Your task to perform on an android device: Search for the ikea billy bookcase Image 0: 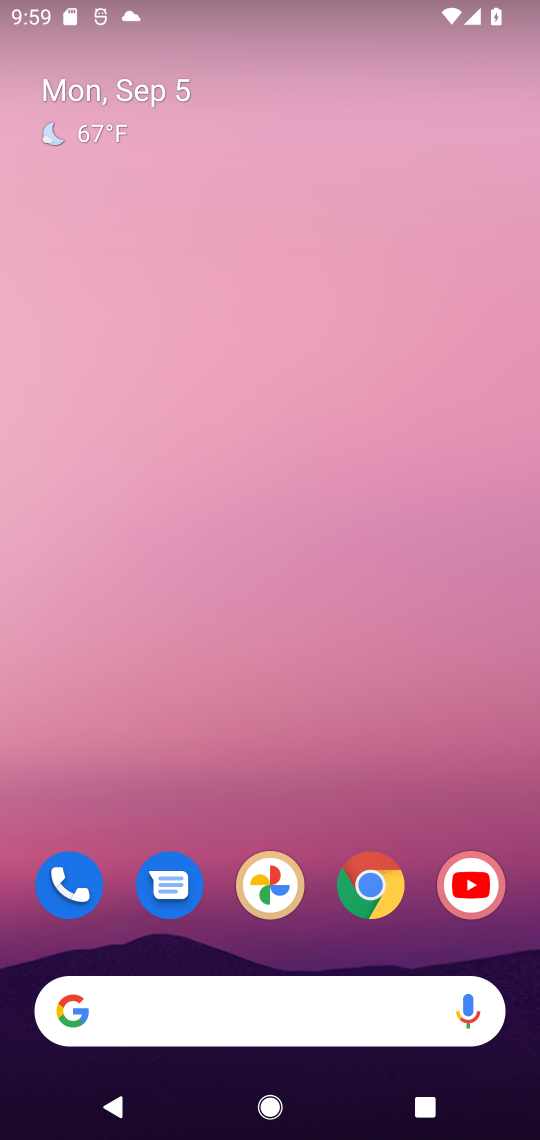
Step 0: drag from (322, 963) to (0, 329)
Your task to perform on an android device: Search for the ikea billy bookcase Image 1: 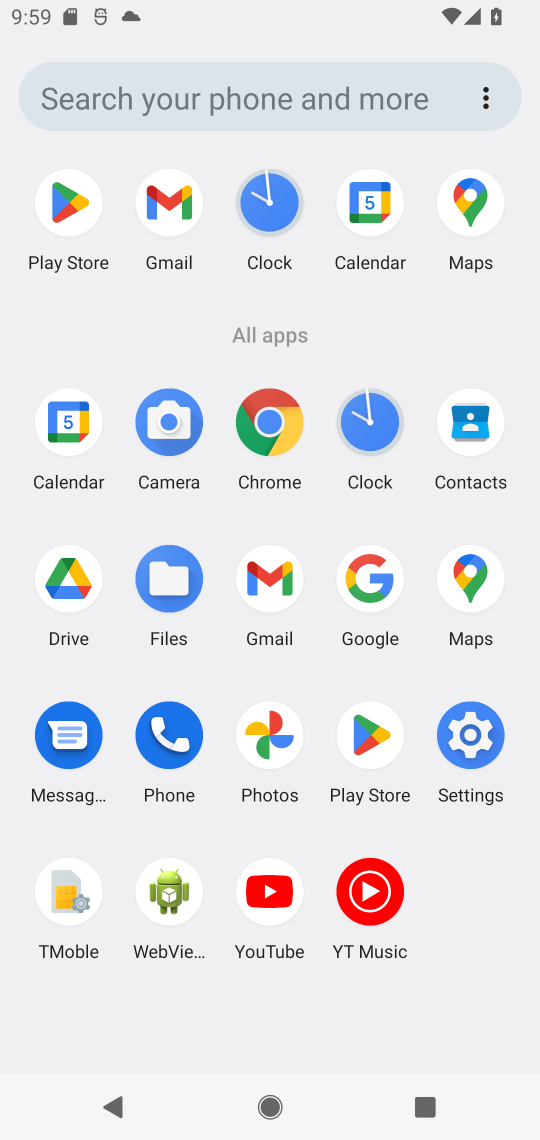
Step 1: click (362, 581)
Your task to perform on an android device: Search for the ikea billy bookcase Image 2: 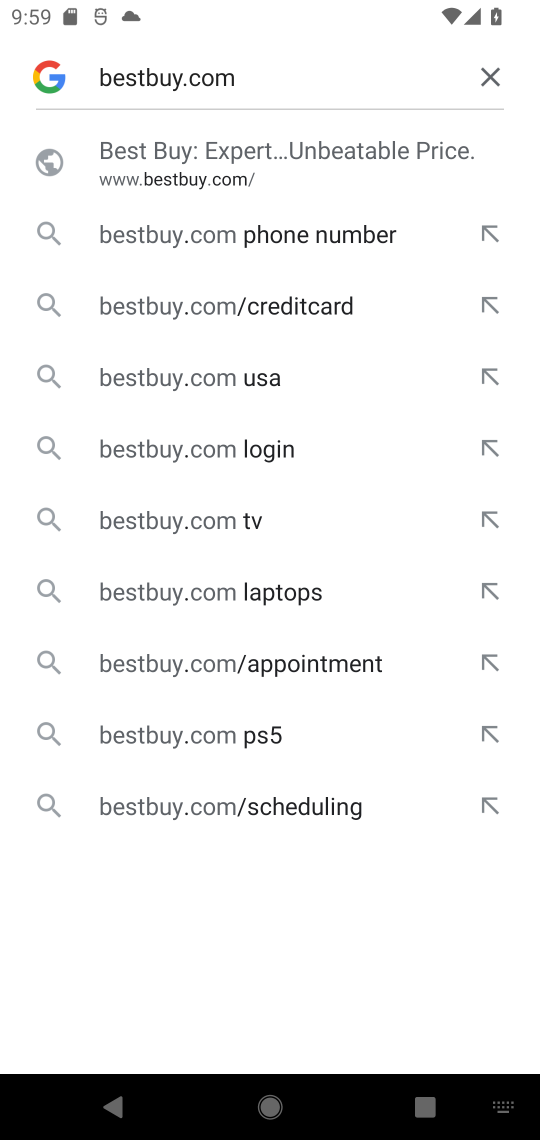
Step 2: click (491, 78)
Your task to perform on an android device: Search for the ikea billy bookcase Image 3: 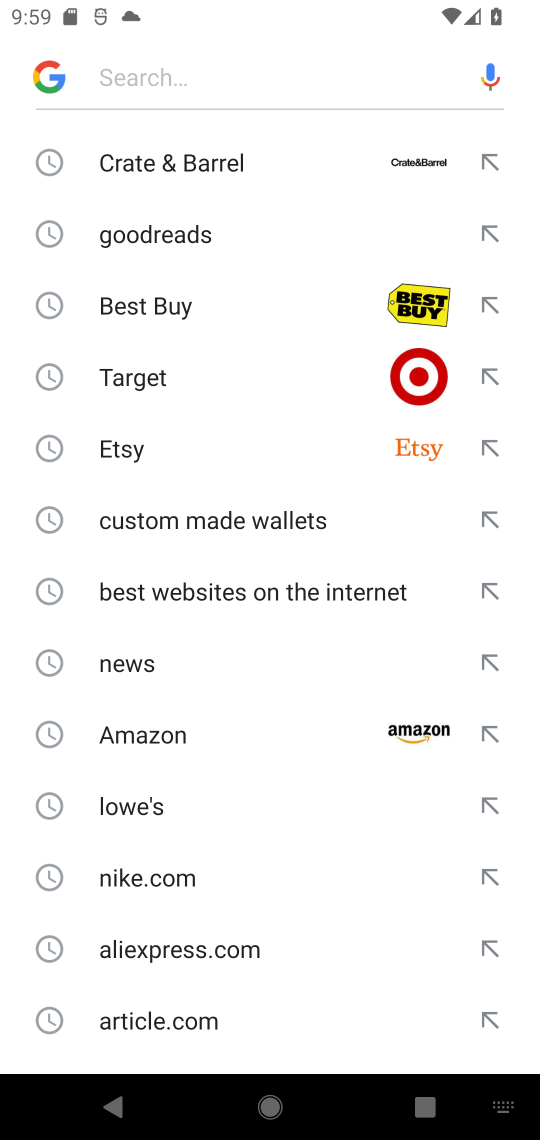
Step 3: type "bookcase"
Your task to perform on an android device: Search for the ikea billy bookcase Image 4: 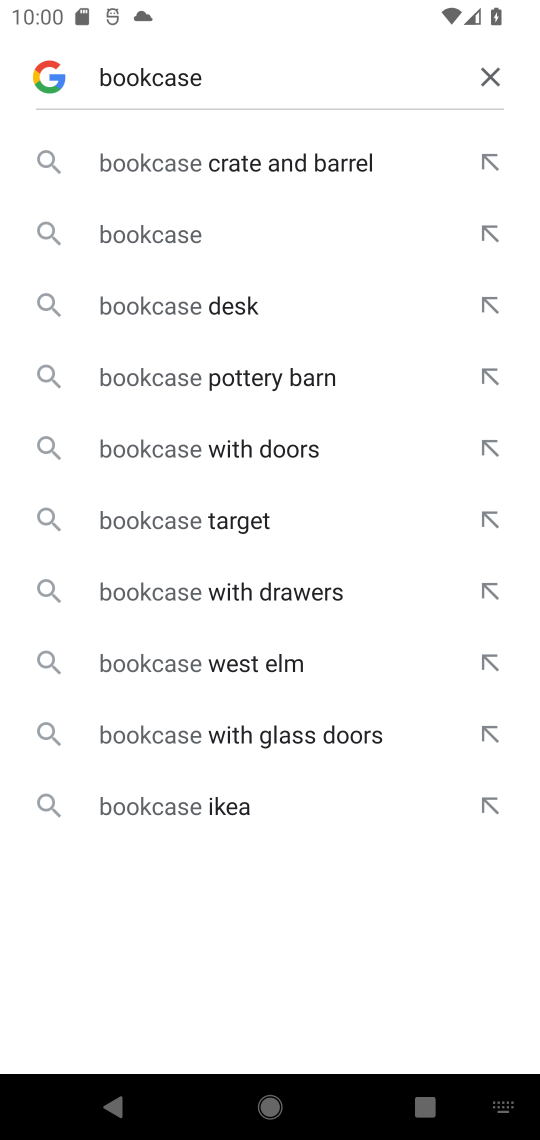
Step 4: click (492, 78)
Your task to perform on an android device: Search for the ikea billy bookcase Image 5: 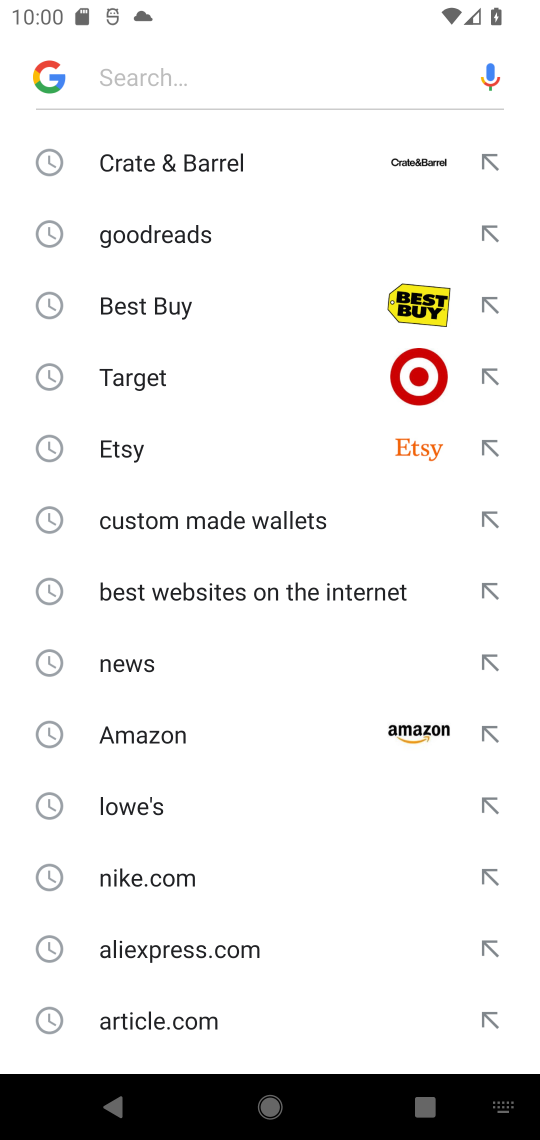
Step 5: click (248, 81)
Your task to perform on an android device: Search for the ikea billy bookcase Image 6: 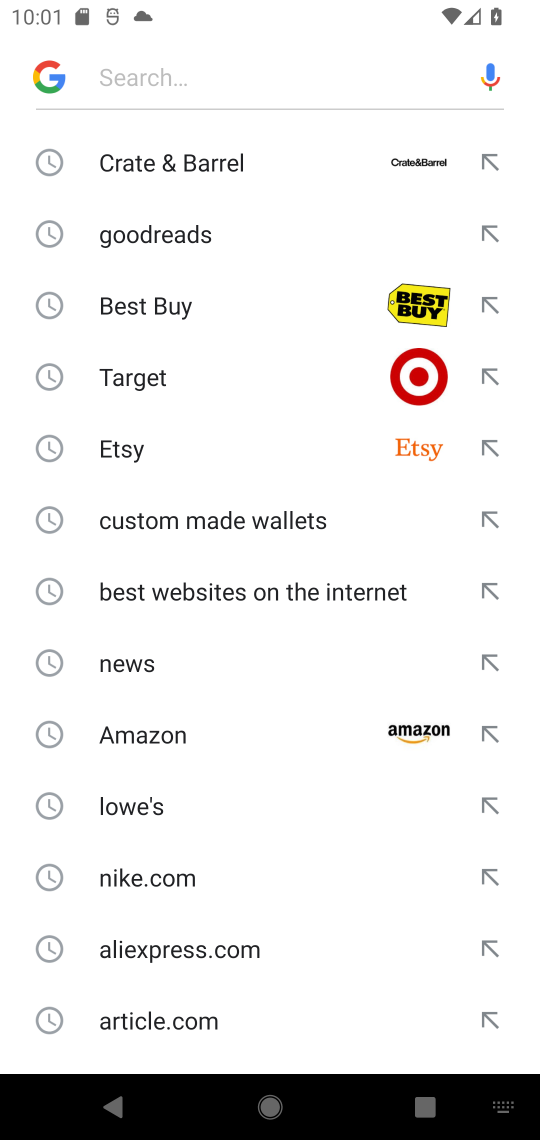
Step 6: type "billy bookcase"
Your task to perform on an android device: Search for the ikea billy bookcase Image 7: 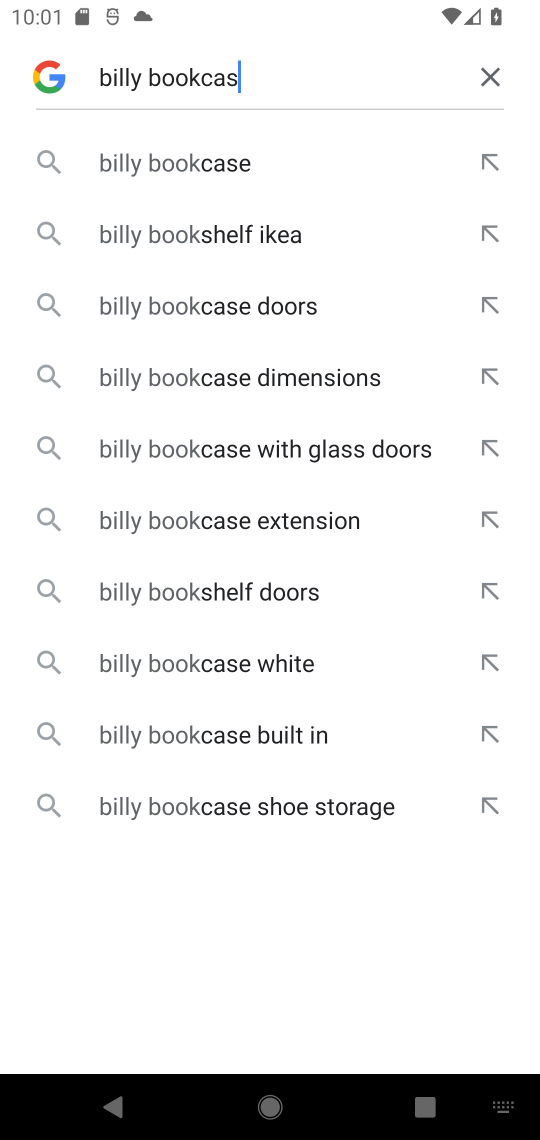
Step 7: type ""
Your task to perform on an android device: Search for the ikea billy bookcase Image 8: 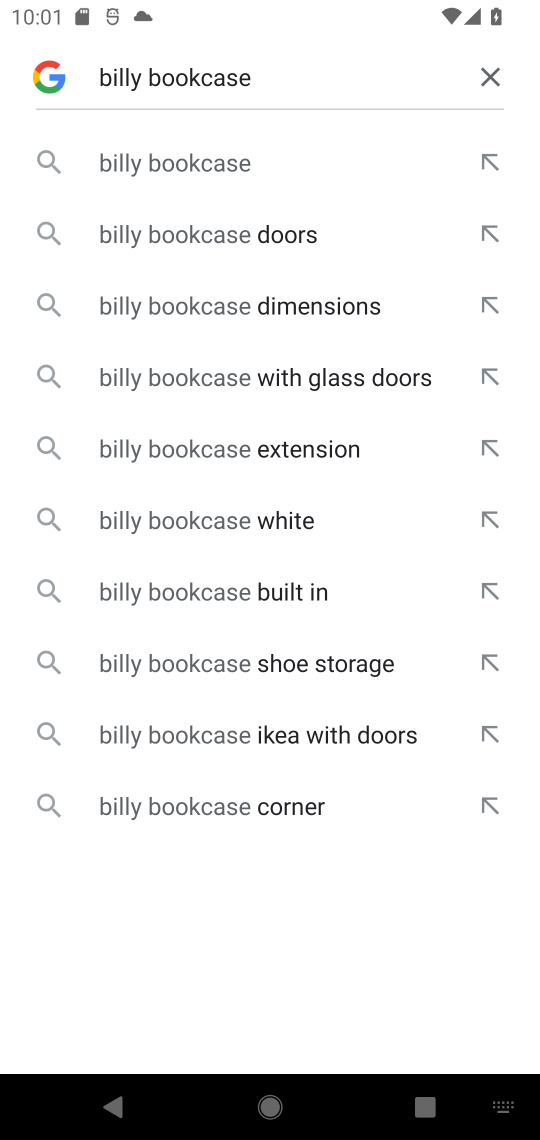
Step 8: click (214, 165)
Your task to perform on an android device: Search for the ikea billy bookcase Image 9: 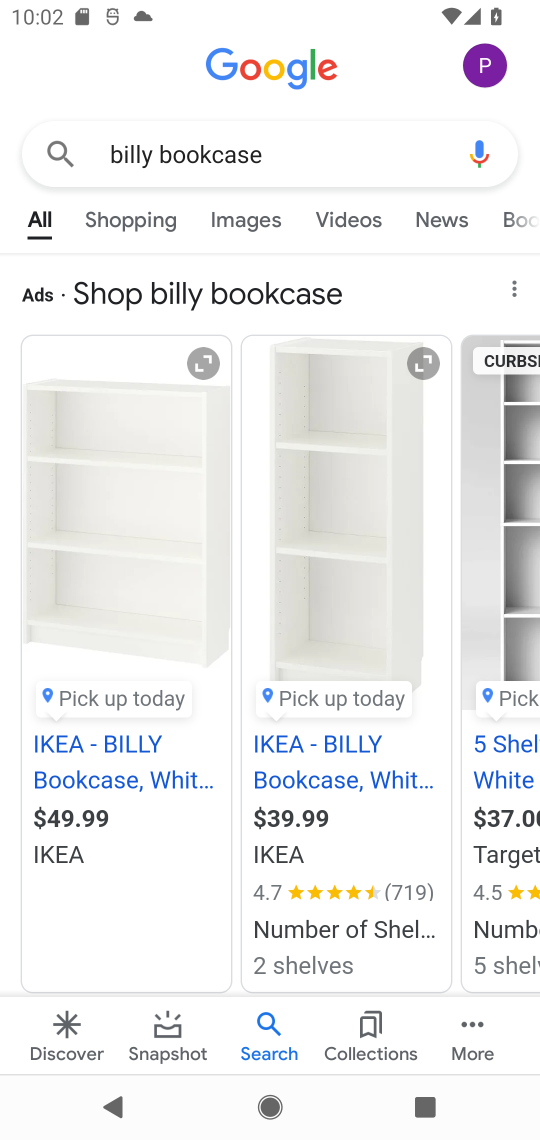
Step 9: task complete